Your task to perform on an android device: Open notification settings Image 0: 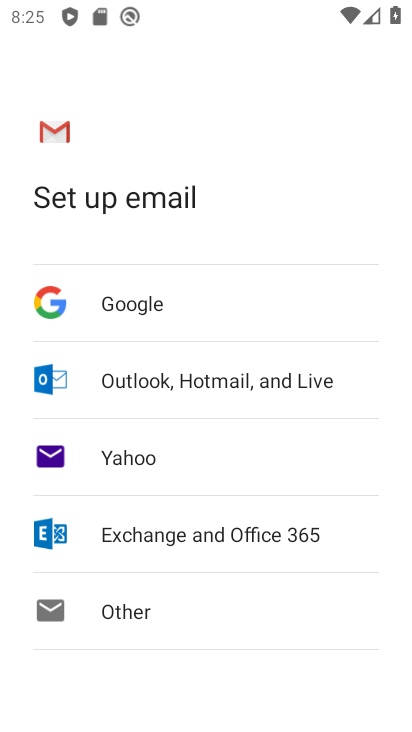
Step 0: press home button
Your task to perform on an android device: Open notification settings Image 1: 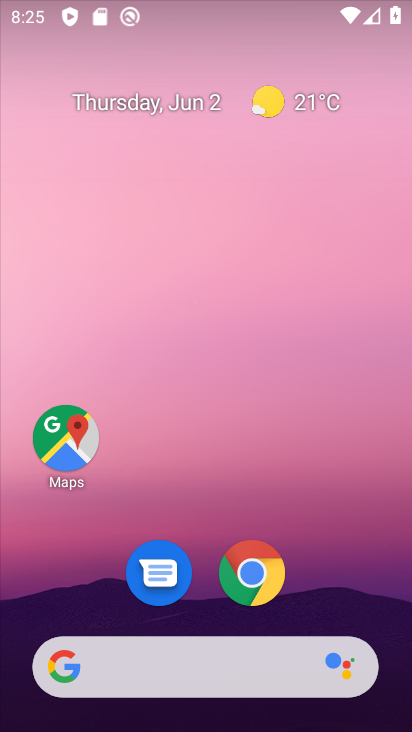
Step 1: drag from (301, 605) to (317, 19)
Your task to perform on an android device: Open notification settings Image 2: 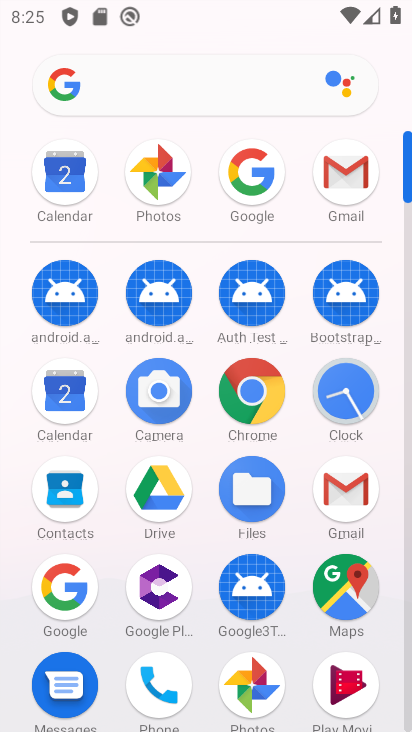
Step 2: drag from (196, 564) to (220, 39)
Your task to perform on an android device: Open notification settings Image 3: 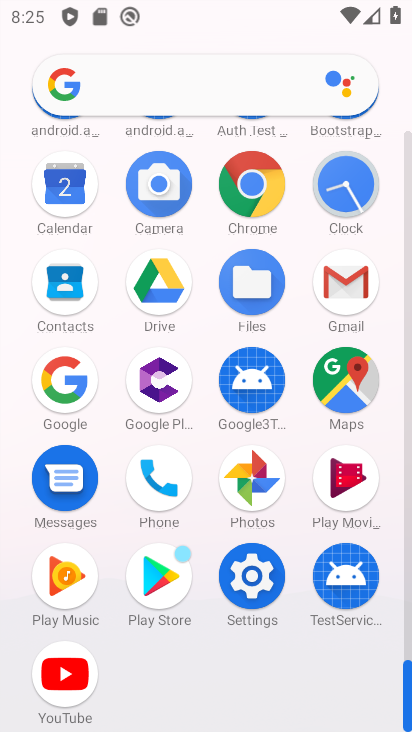
Step 3: click (253, 588)
Your task to perform on an android device: Open notification settings Image 4: 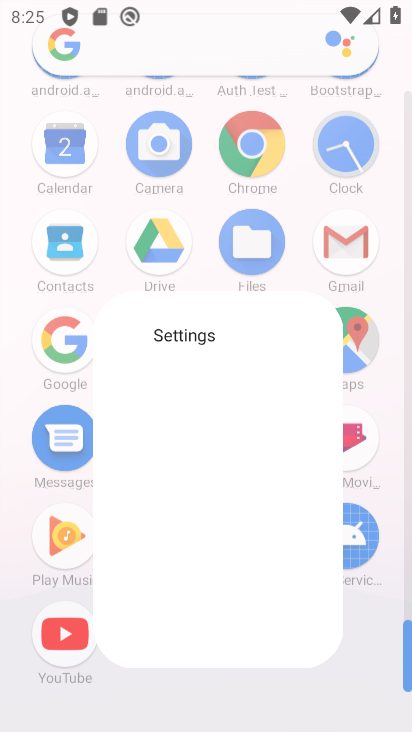
Step 4: click (258, 585)
Your task to perform on an android device: Open notification settings Image 5: 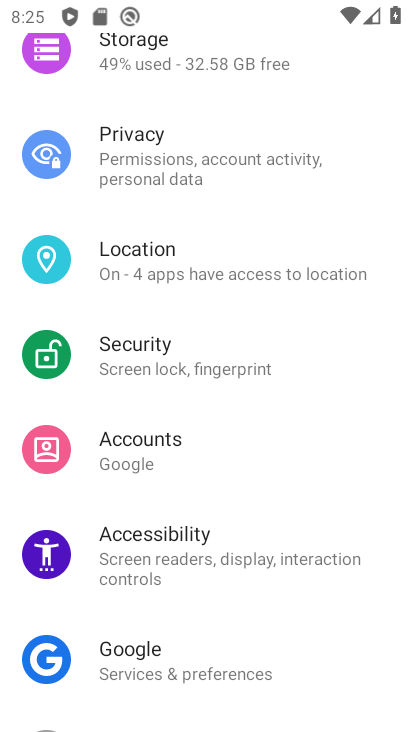
Step 5: drag from (192, 144) to (262, 652)
Your task to perform on an android device: Open notification settings Image 6: 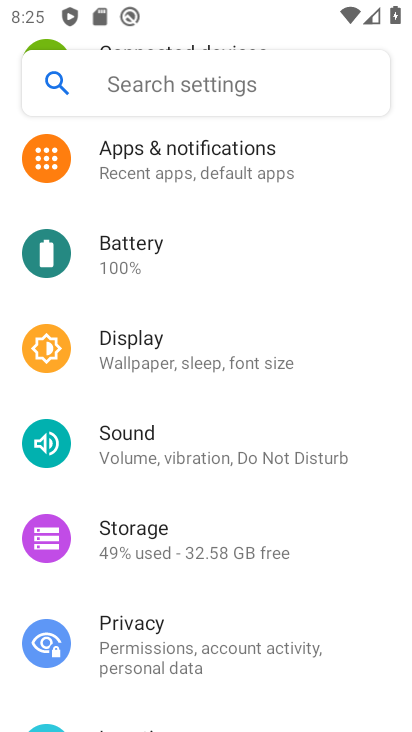
Step 6: click (182, 175)
Your task to perform on an android device: Open notification settings Image 7: 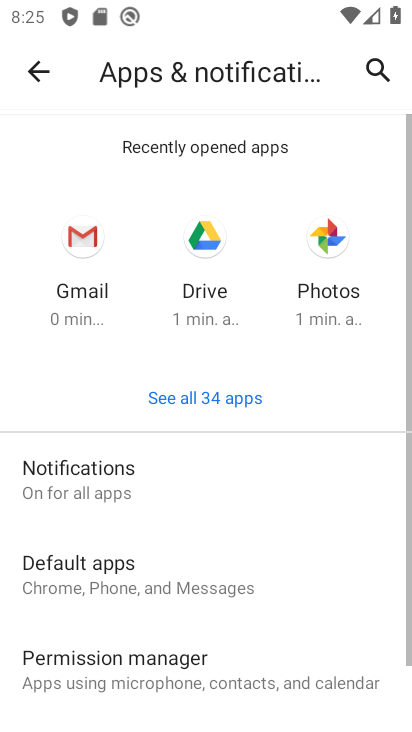
Step 7: click (103, 498)
Your task to perform on an android device: Open notification settings Image 8: 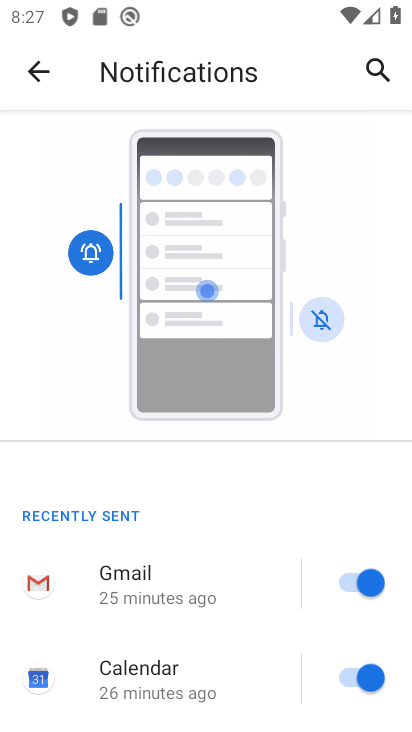
Step 8: task complete